Your task to perform on an android device: Go to Google maps Image 0: 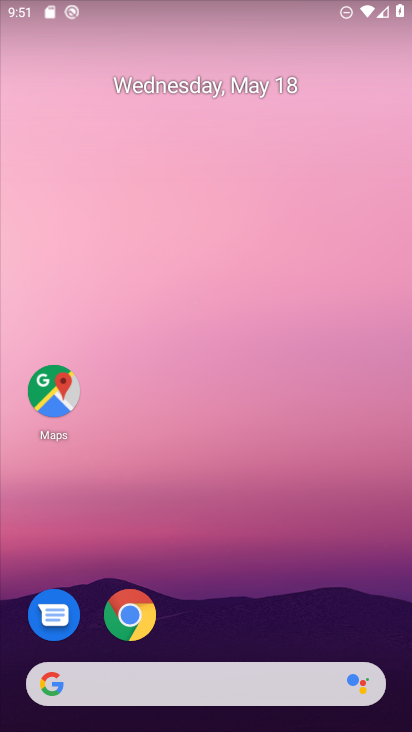
Step 0: click (47, 388)
Your task to perform on an android device: Go to Google maps Image 1: 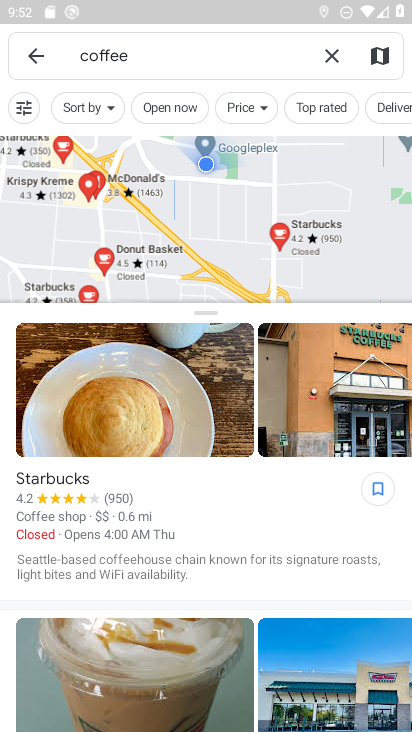
Step 1: task complete